Your task to perform on an android device: change notification settings in the gmail app Image 0: 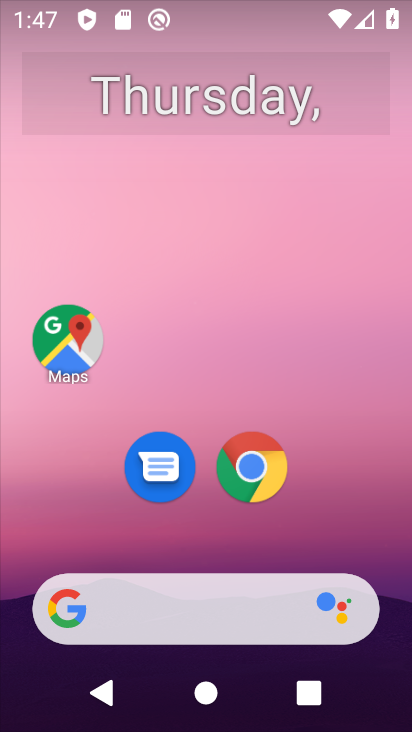
Step 0: drag from (376, 538) to (313, 197)
Your task to perform on an android device: change notification settings in the gmail app Image 1: 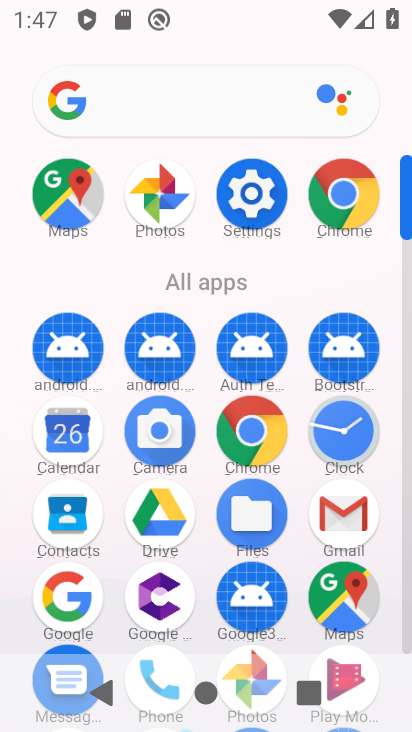
Step 1: click (346, 522)
Your task to perform on an android device: change notification settings in the gmail app Image 2: 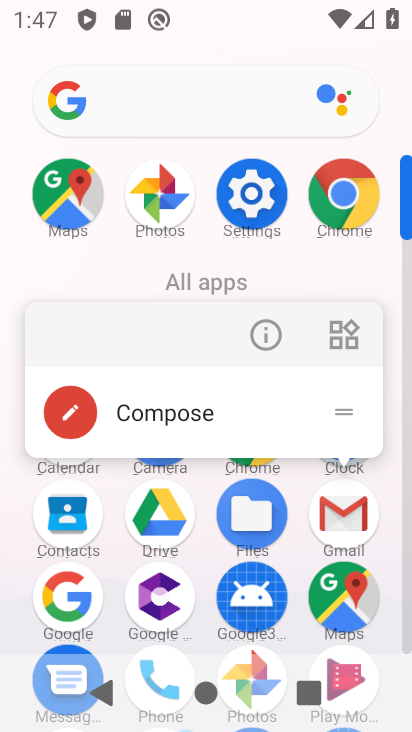
Step 2: click (345, 523)
Your task to perform on an android device: change notification settings in the gmail app Image 3: 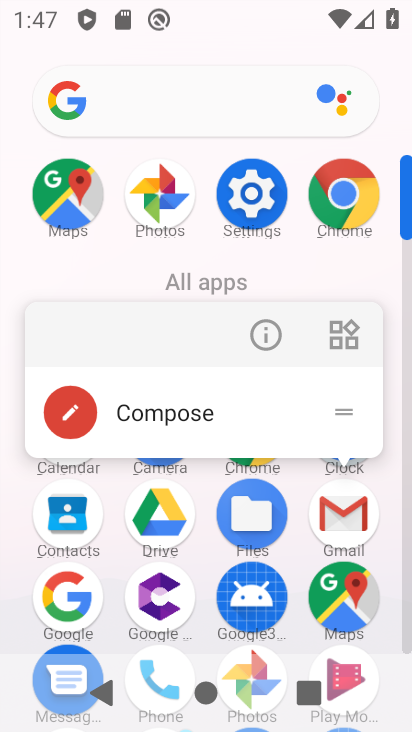
Step 3: click (334, 529)
Your task to perform on an android device: change notification settings in the gmail app Image 4: 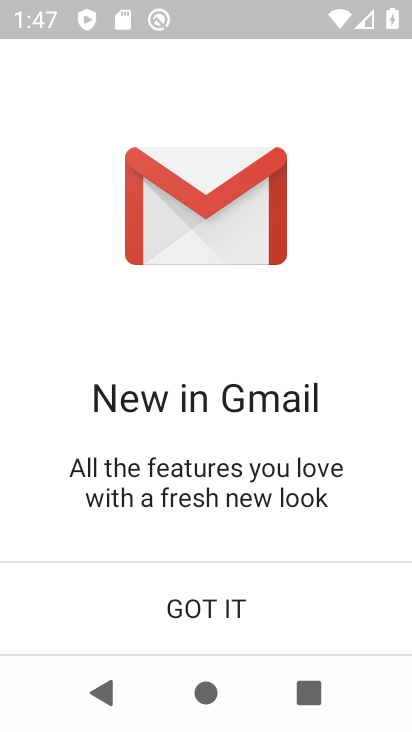
Step 4: click (255, 594)
Your task to perform on an android device: change notification settings in the gmail app Image 5: 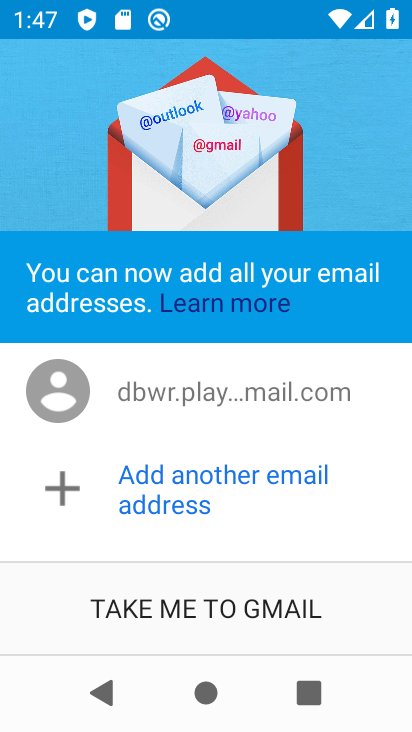
Step 5: click (317, 612)
Your task to perform on an android device: change notification settings in the gmail app Image 6: 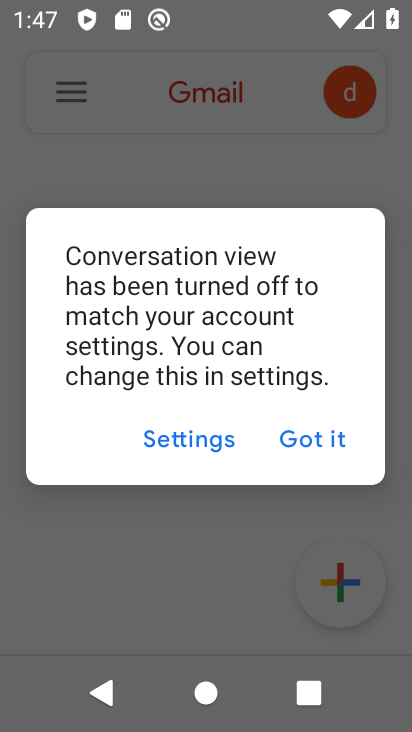
Step 6: click (322, 451)
Your task to perform on an android device: change notification settings in the gmail app Image 7: 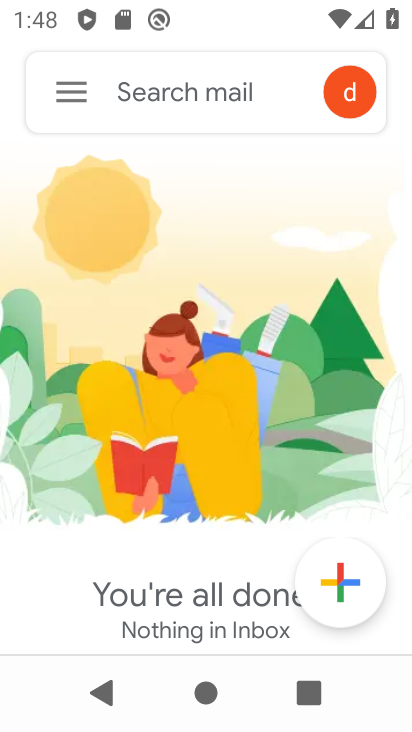
Step 7: click (60, 96)
Your task to perform on an android device: change notification settings in the gmail app Image 8: 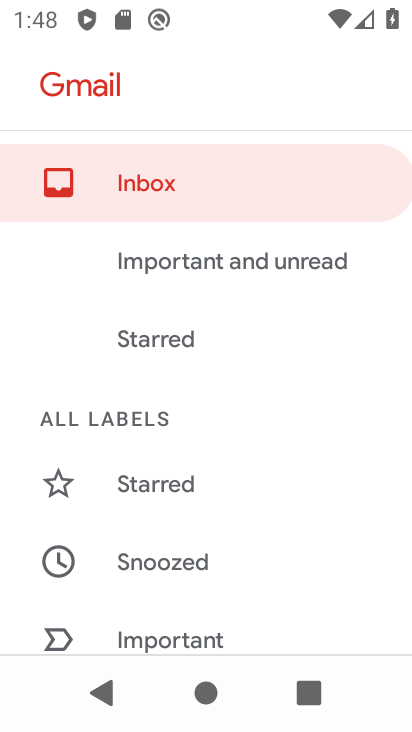
Step 8: drag from (162, 463) to (209, 206)
Your task to perform on an android device: change notification settings in the gmail app Image 9: 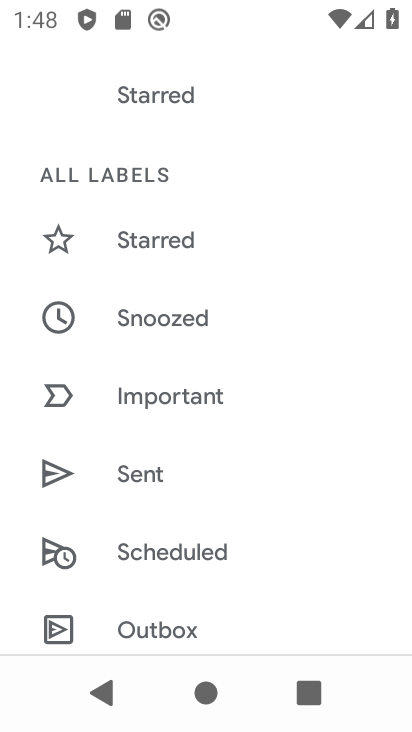
Step 9: drag from (230, 589) to (240, 227)
Your task to perform on an android device: change notification settings in the gmail app Image 10: 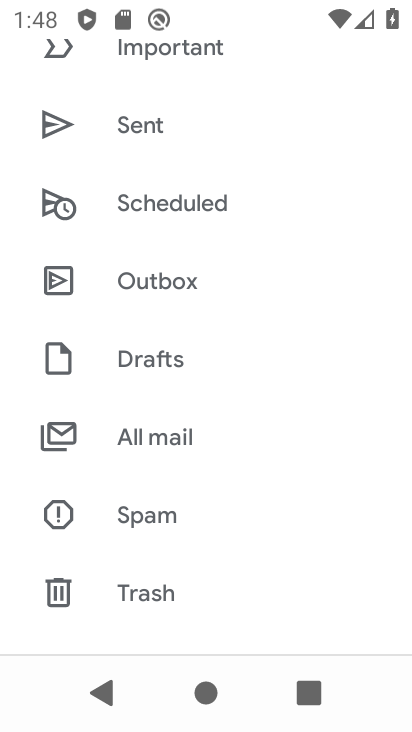
Step 10: click (218, 287)
Your task to perform on an android device: change notification settings in the gmail app Image 11: 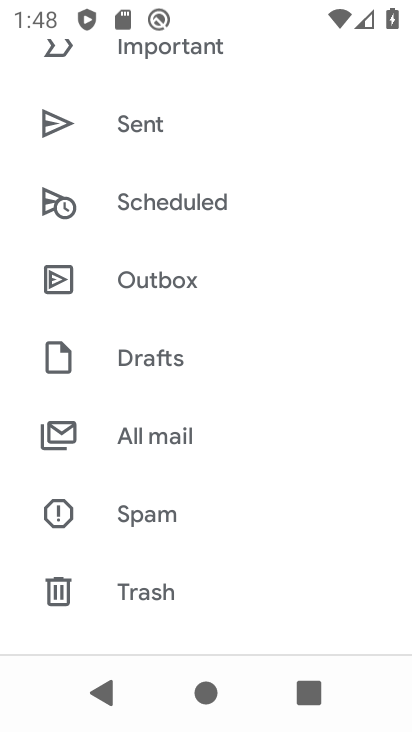
Step 11: drag from (139, 646) to (209, 311)
Your task to perform on an android device: change notification settings in the gmail app Image 12: 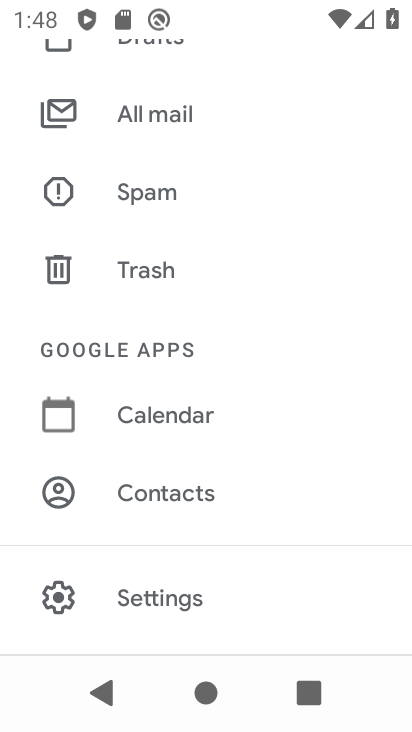
Step 12: click (75, 597)
Your task to perform on an android device: change notification settings in the gmail app Image 13: 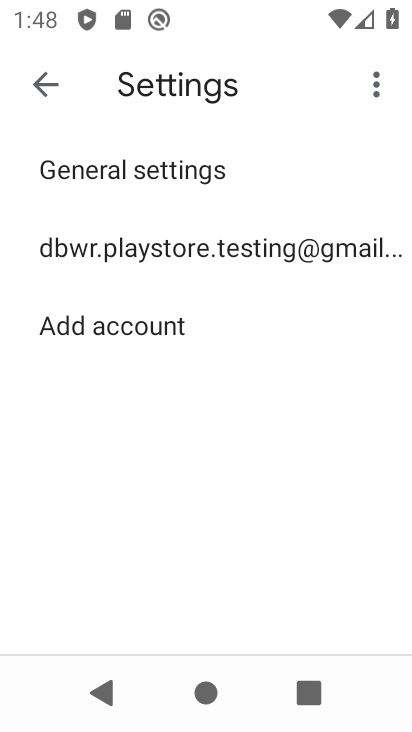
Step 13: click (216, 250)
Your task to perform on an android device: change notification settings in the gmail app Image 14: 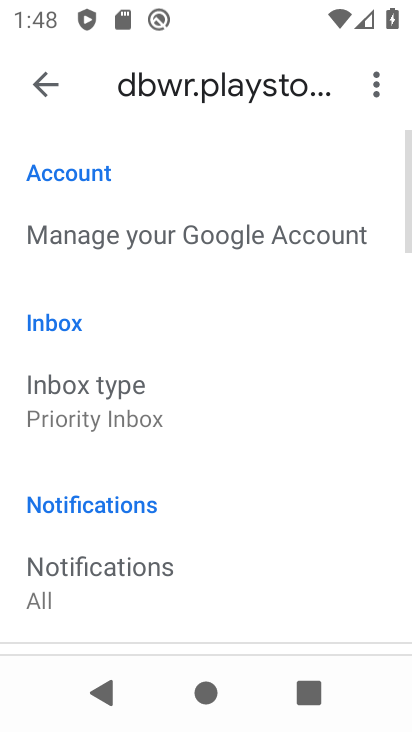
Step 14: drag from (199, 579) to (197, 230)
Your task to perform on an android device: change notification settings in the gmail app Image 15: 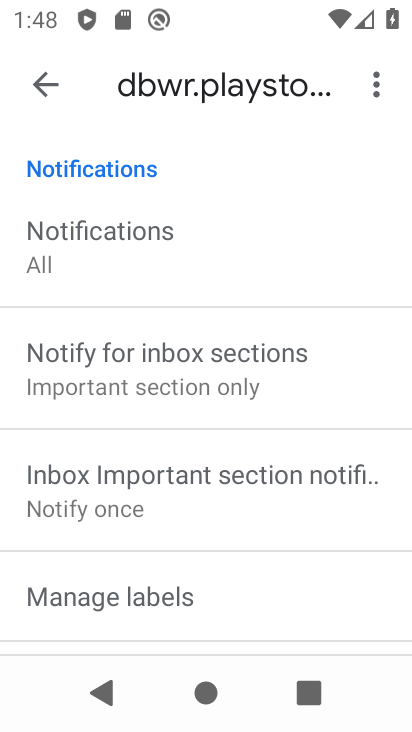
Step 15: click (97, 255)
Your task to perform on an android device: change notification settings in the gmail app Image 16: 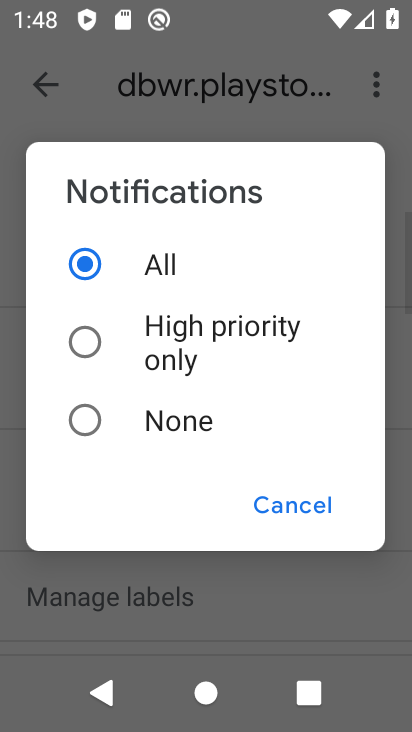
Step 16: click (140, 345)
Your task to perform on an android device: change notification settings in the gmail app Image 17: 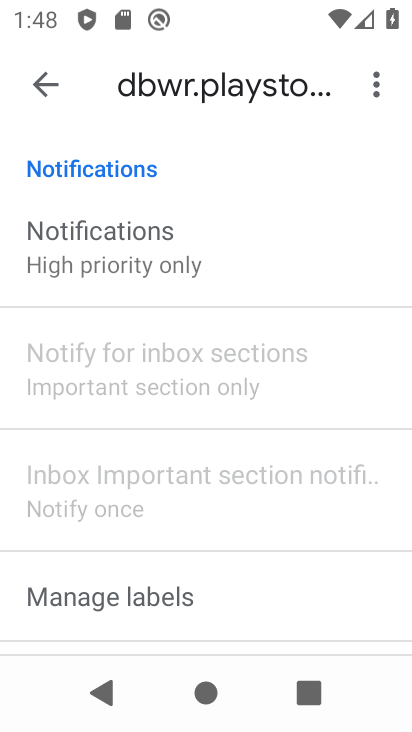
Step 17: task complete